Your task to perform on an android device: Open Chrome and go to settings Image 0: 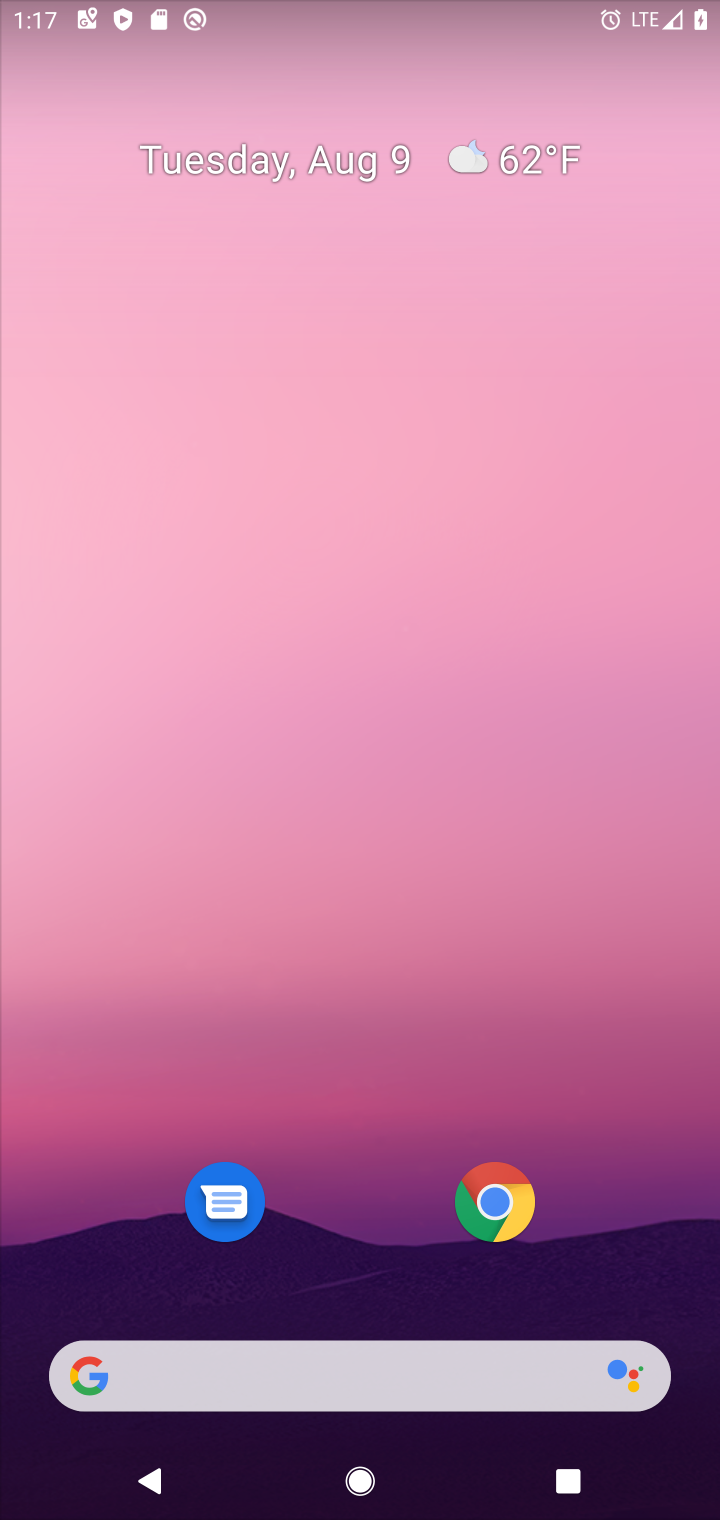
Step 0: click (496, 1198)
Your task to perform on an android device: Open Chrome and go to settings Image 1: 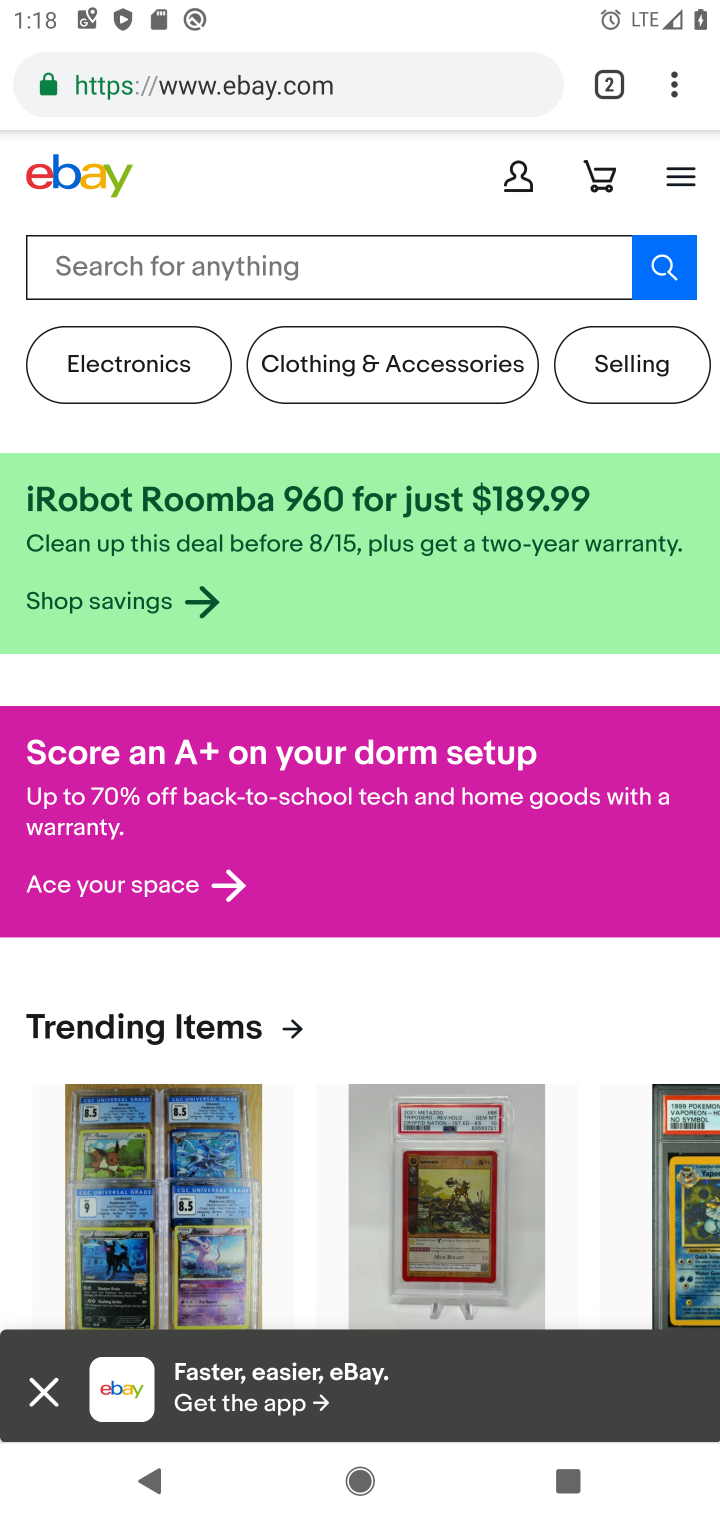
Step 1: click (671, 85)
Your task to perform on an android device: Open Chrome and go to settings Image 2: 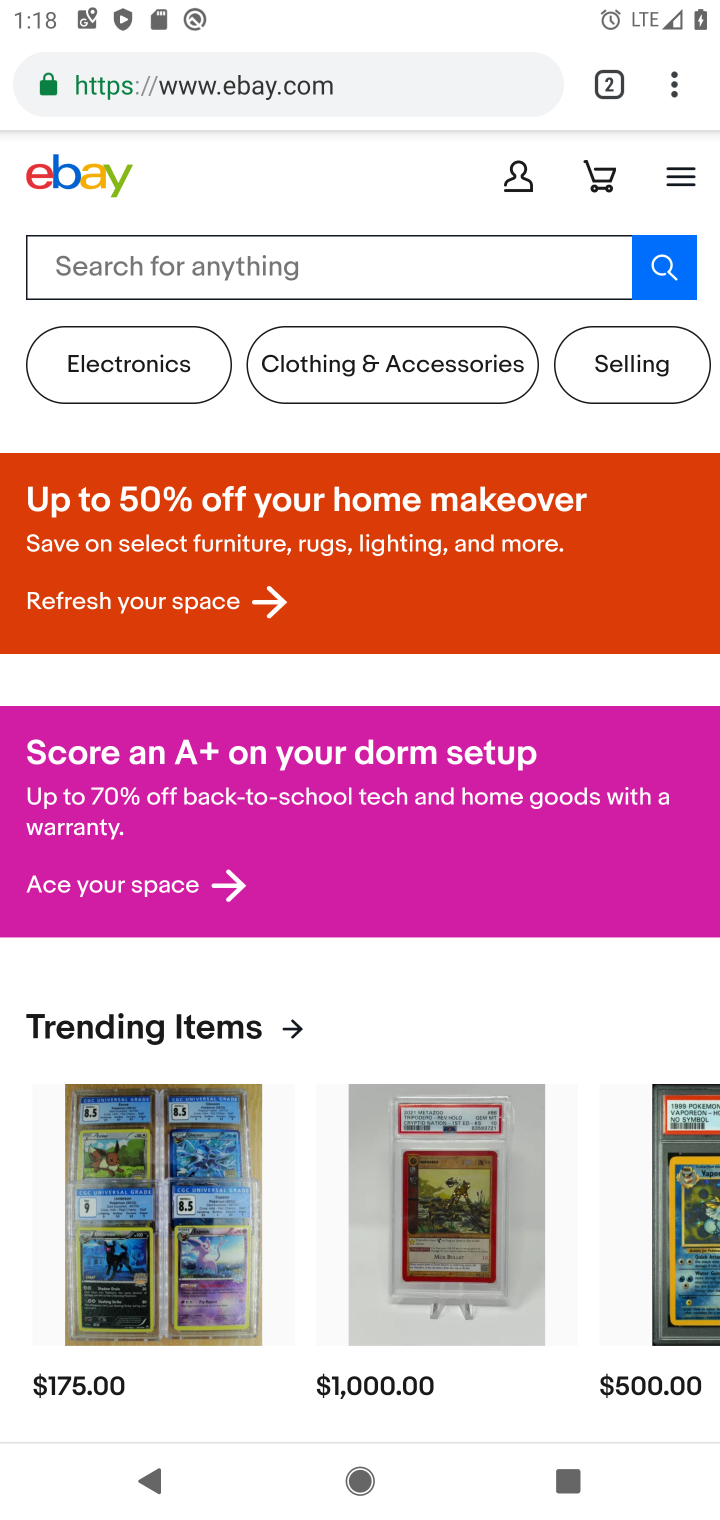
Step 2: click (673, 86)
Your task to perform on an android device: Open Chrome and go to settings Image 3: 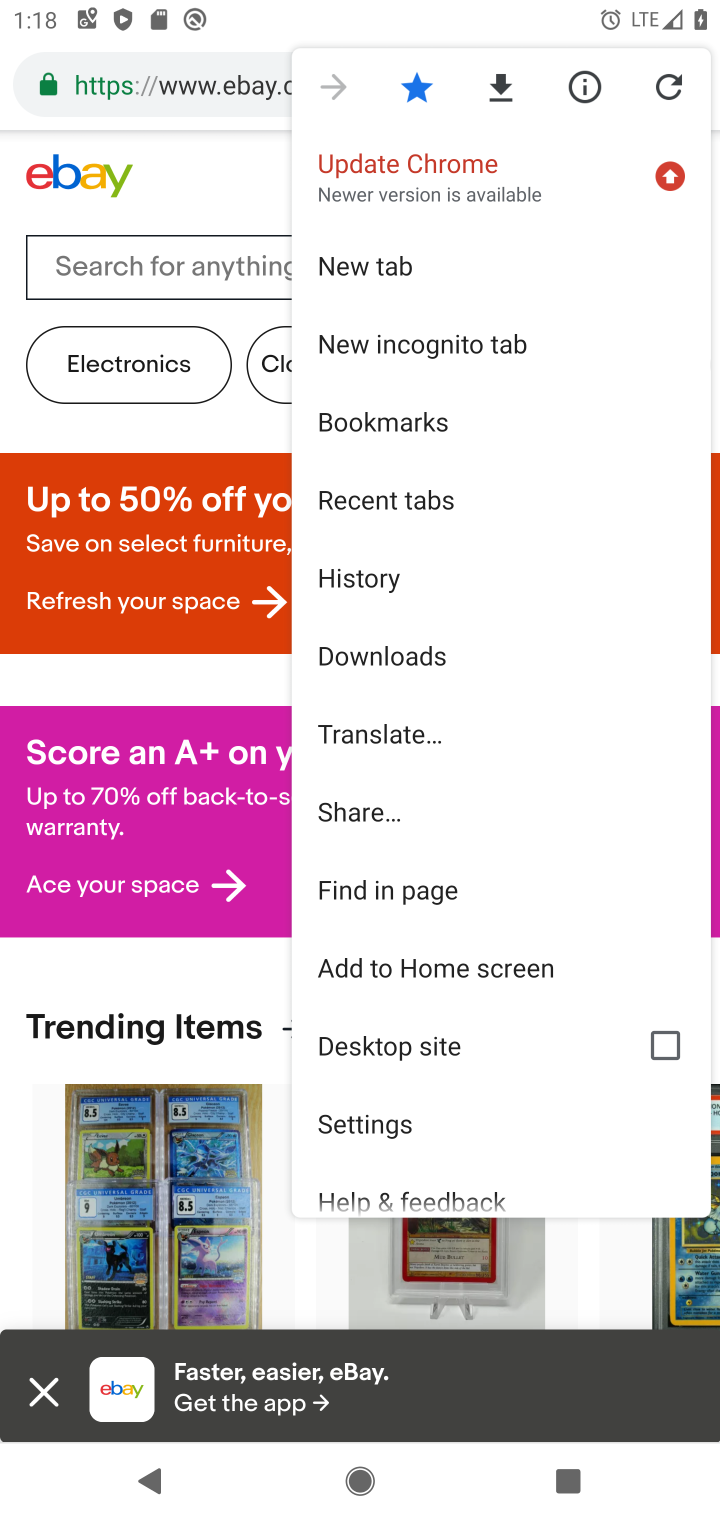
Step 3: click (399, 1124)
Your task to perform on an android device: Open Chrome and go to settings Image 4: 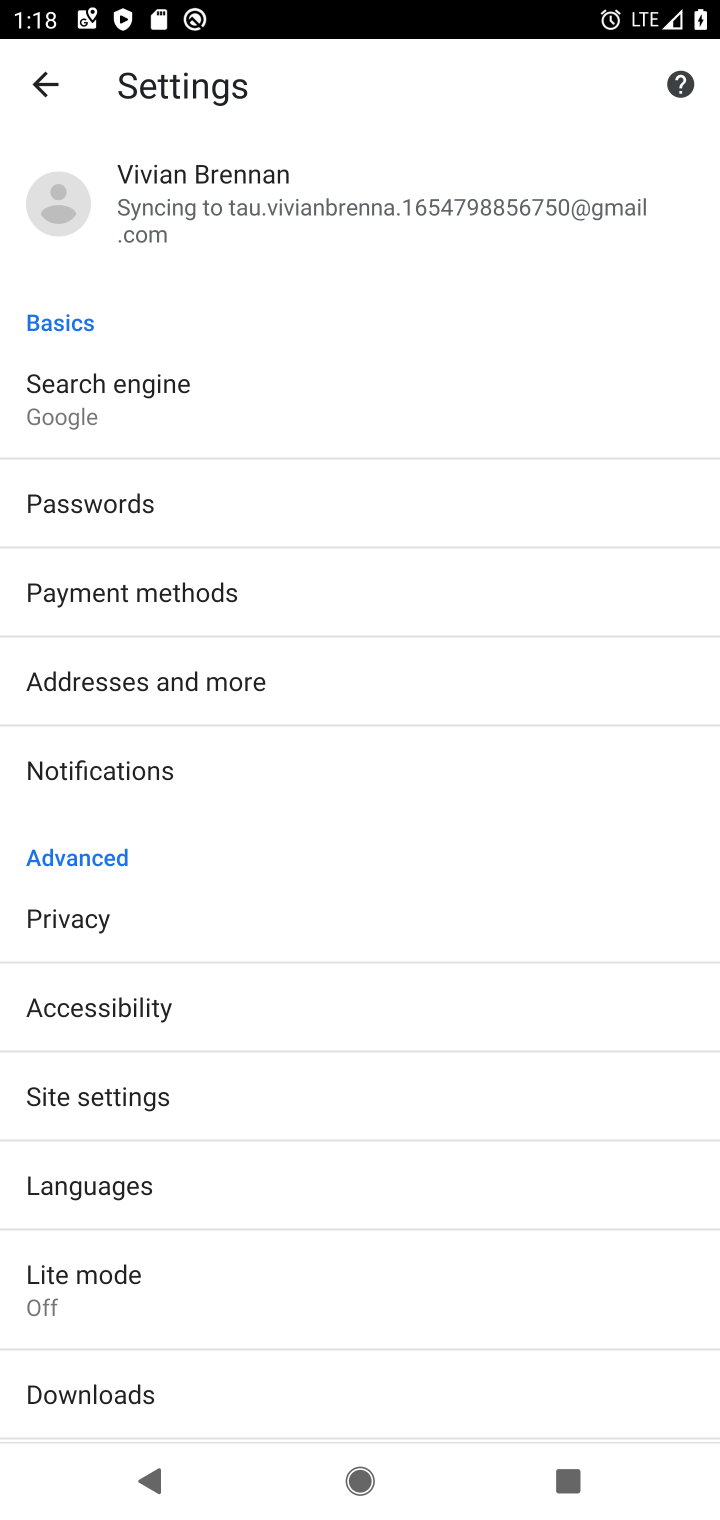
Step 4: task complete